Your task to perform on an android device: Open eBay Image 0: 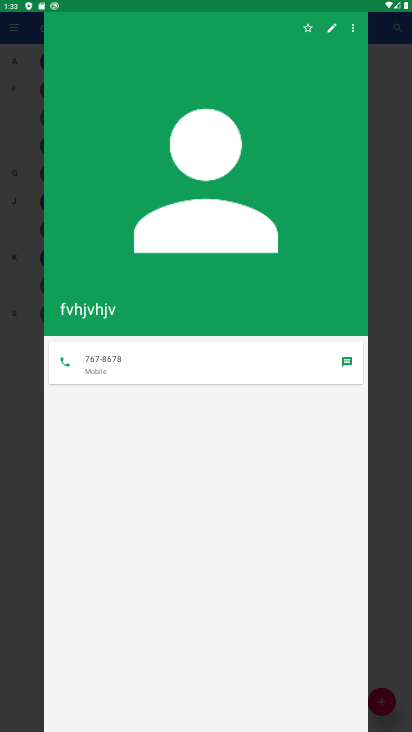
Step 0: press home button
Your task to perform on an android device: Open eBay Image 1: 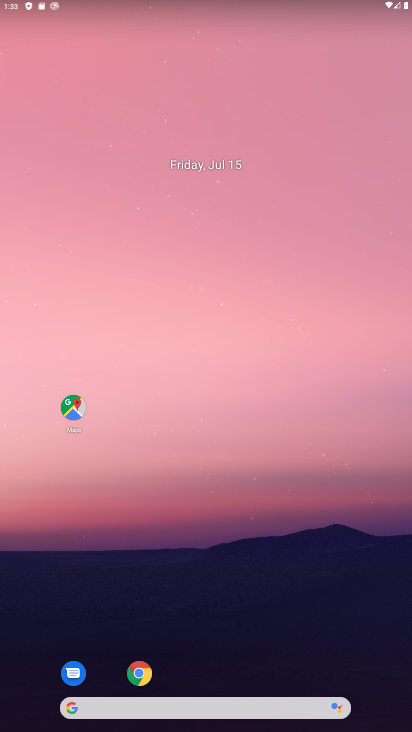
Step 1: drag from (270, 592) to (240, 0)
Your task to perform on an android device: Open eBay Image 2: 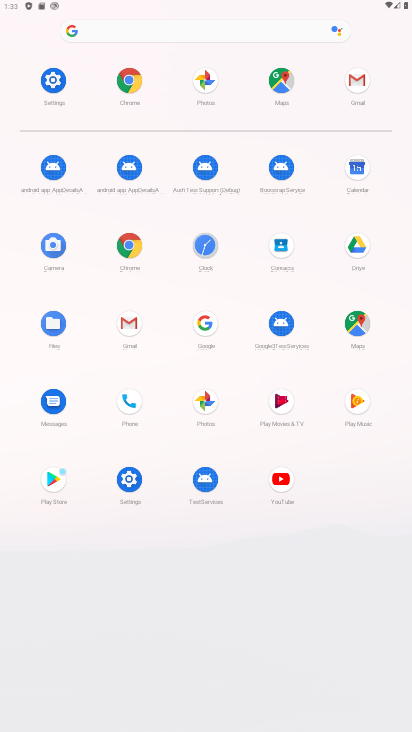
Step 2: click (131, 82)
Your task to perform on an android device: Open eBay Image 3: 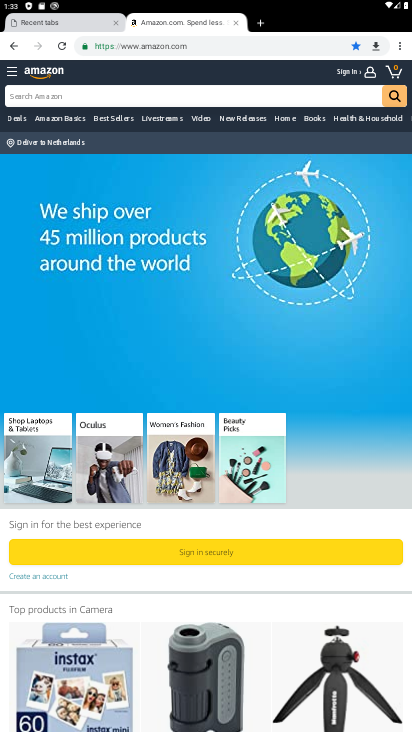
Step 3: click (254, 19)
Your task to perform on an android device: Open eBay Image 4: 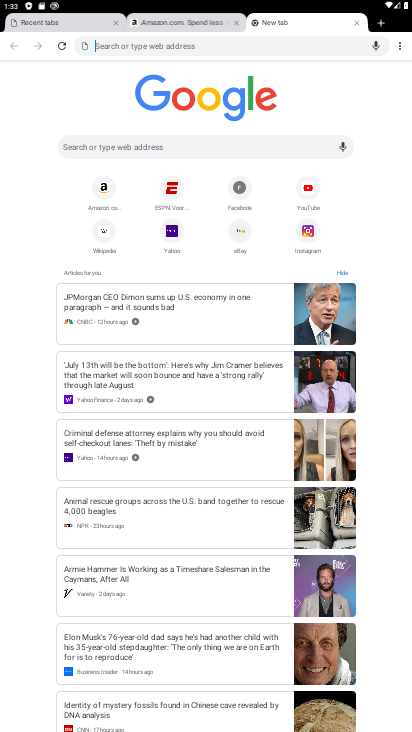
Step 4: click (240, 223)
Your task to perform on an android device: Open eBay Image 5: 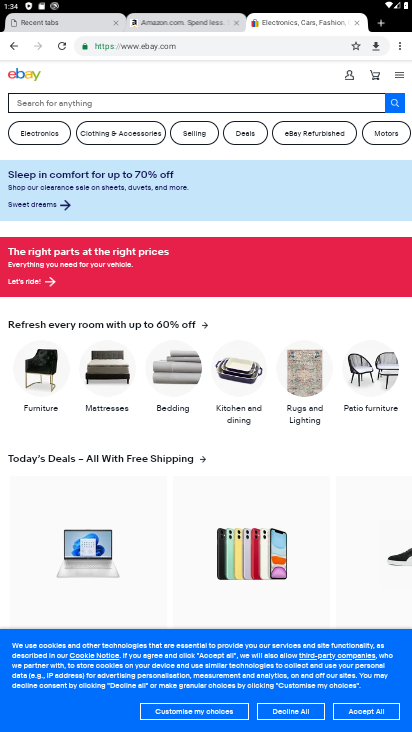
Step 5: task complete